Your task to perform on an android device: turn pop-ups off in chrome Image 0: 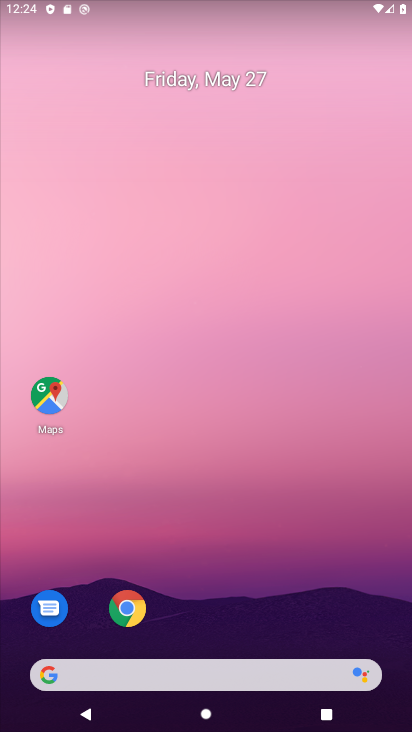
Step 0: click (146, 607)
Your task to perform on an android device: turn pop-ups off in chrome Image 1: 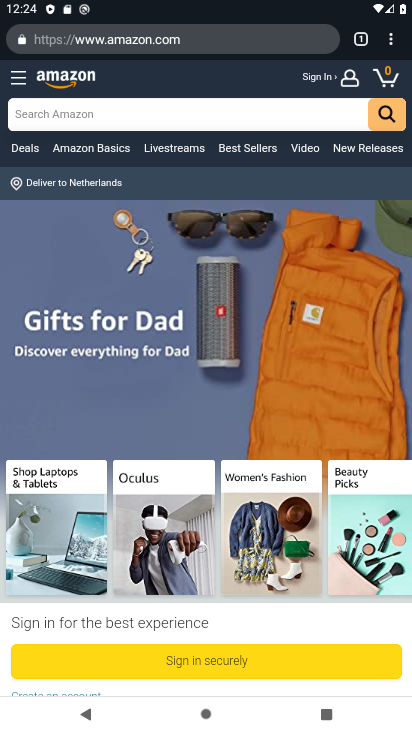
Step 1: drag from (388, 44) to (261, 469)
Your task to perform on an android device: turn pop-ups off in chrome Image 2: 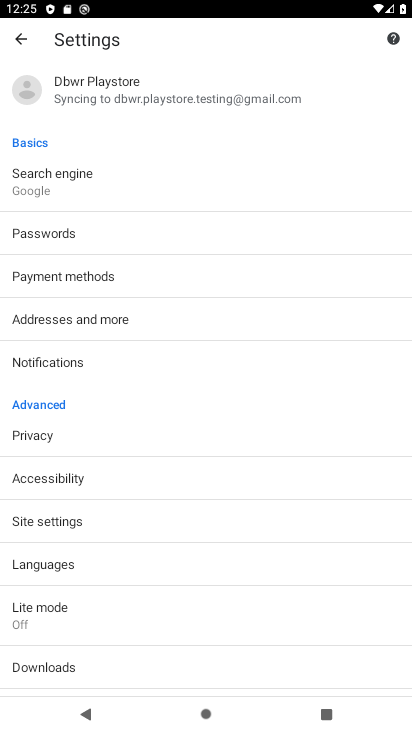
Step 2: click (118, 513)
Your task to perform on an android device: turn pop-ups off in chrome Image 3: 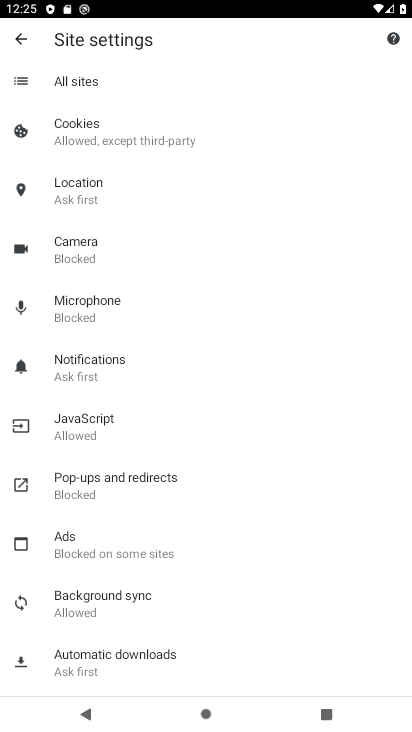
Step 3: click (115, 485)
Your task to perform on an android device: turn pop-ups off in chrome Image 4: 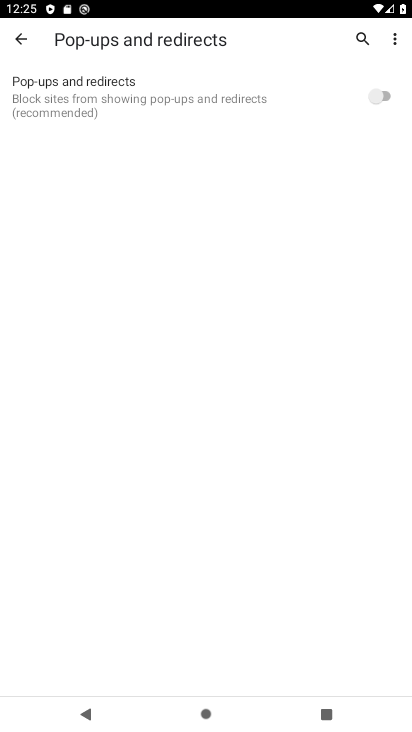
Step 4: task complete